Your task to perform on an android device: How do I get to the nearest Home Depot? Image 0: 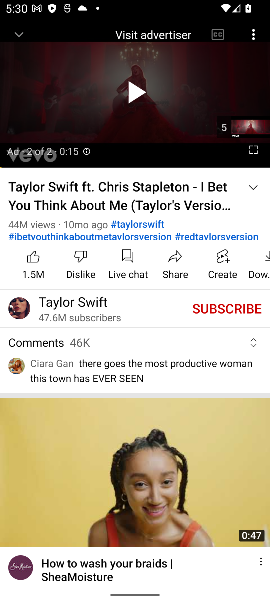
Step 0: press home button
Your task to perform on an android device: How do I get to the nearest Home Depot? Image 1: 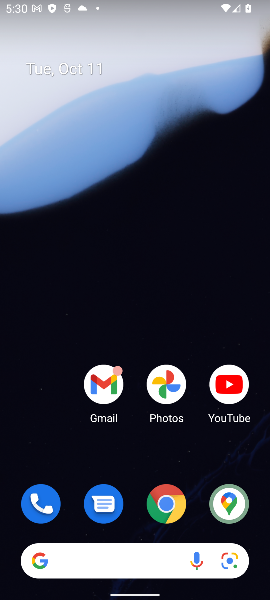
Step 1: click (93, 569)
Your task to perform on an android device: How do I get to the nearest Home Depot? Image 2: 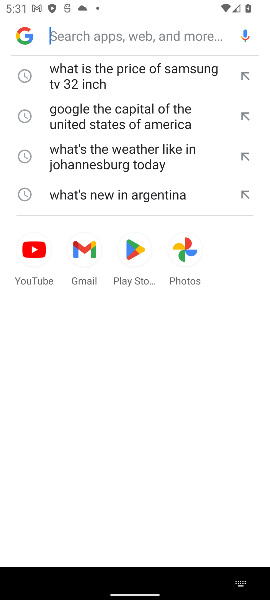
Step 2: click (72, 45)
Your task to perform on an android device: How do I get to the nearest Home Depot? Image 3: 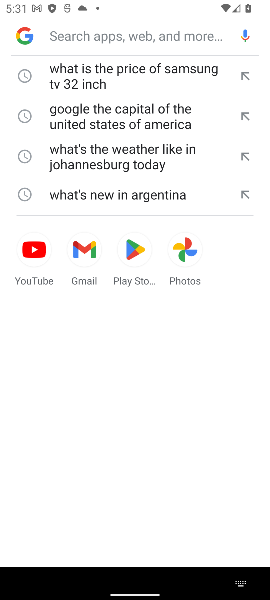
Step 3: type "How do I get to the nearest Home Depot?"
Your task to perform on an android device: How do I get to the nearest Home Depot? Image 4: 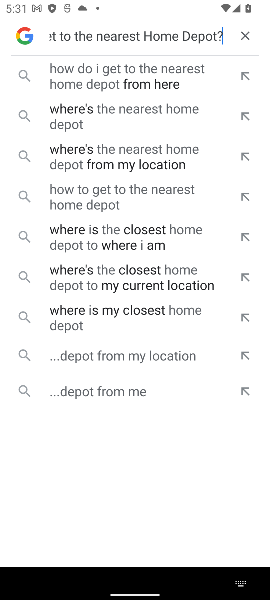
Step 4: click (110, 83)
Your task to perform on an android device: How do I get to the nearest Home Depot? Image 5: 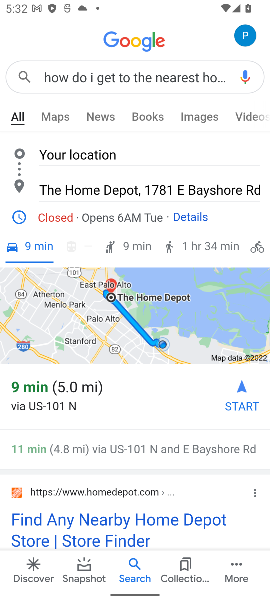
Step 5: task complete